Your task to perform on an android device: Turn on the flashlight Image 0: 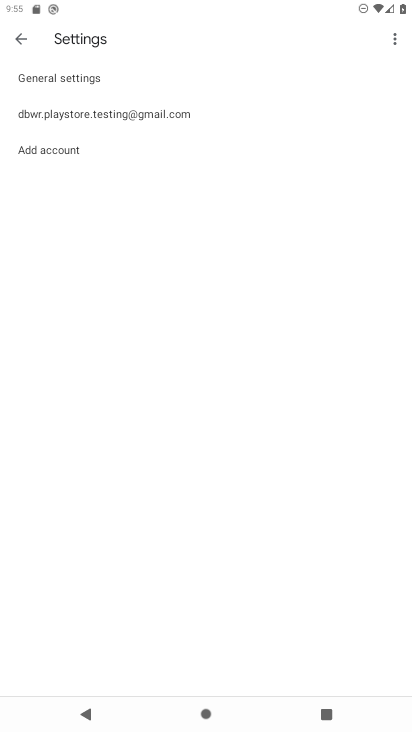
Step 0: press home button
Your task to perform on an android device: Turn on the flashlight Image 1: 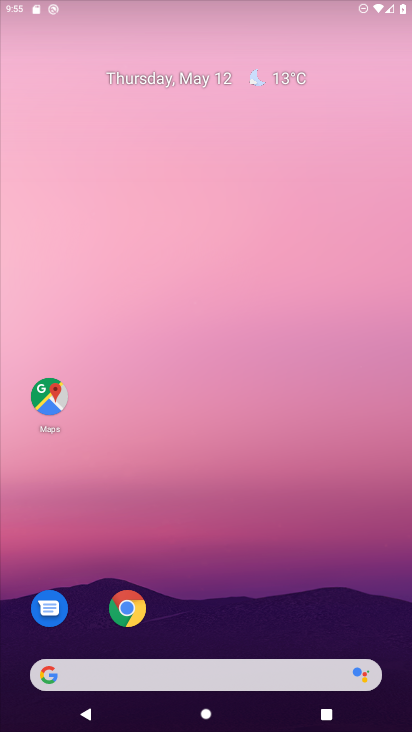
Step 1: task complete